Your task to perform on an android device: check storage Image 0: 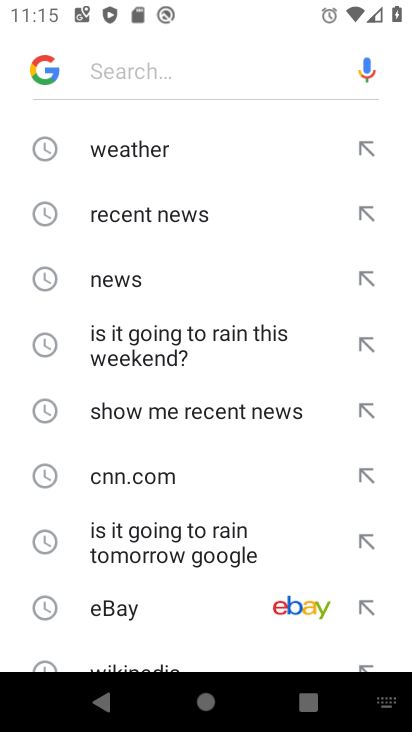
Step 0: press home button
Your task to perform on an android device: check storage Image 1: 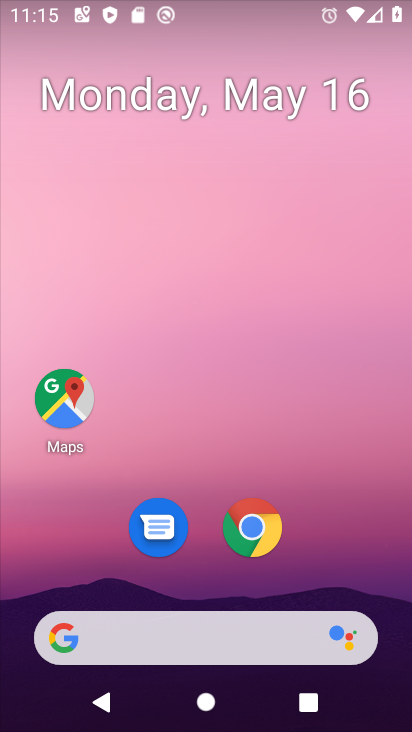
Step 1: drag from (319, 578) to (356, 12)
Your task to perform on an android device: check storage Image 2: 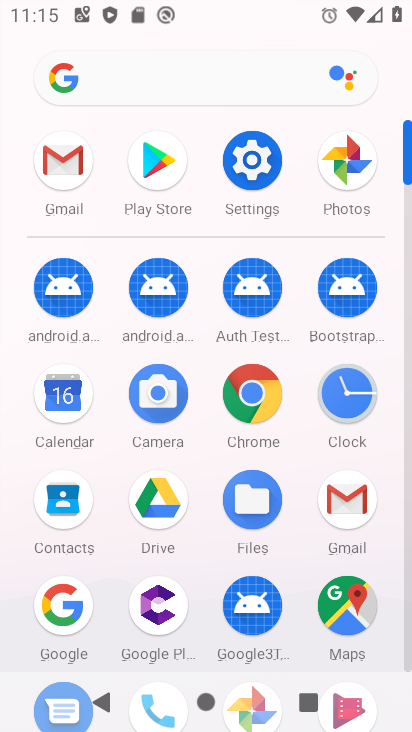
Step 2: click (252, 164)
Your task to perform on an android device: check storage Image 3: 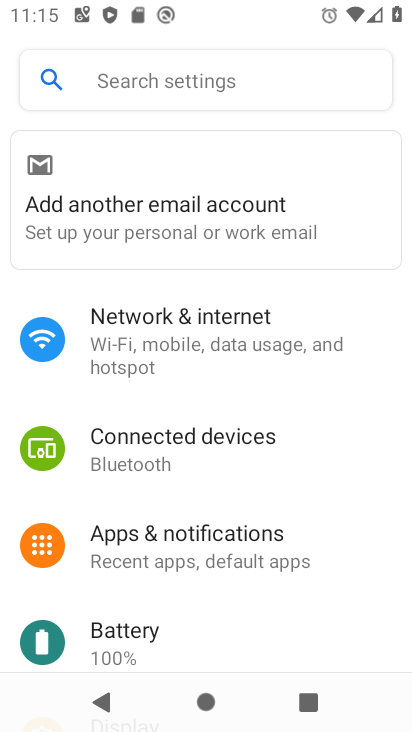
Step 3: drag from (271, 613) to (289, 53)
Your task to perform on an android device: check storage Image 4: 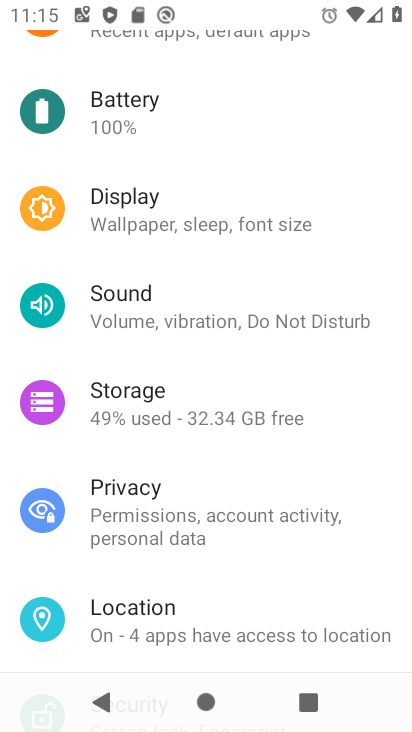
Step 4: click (105, 395)
Your task to perform on an android device: check storage Image 5: 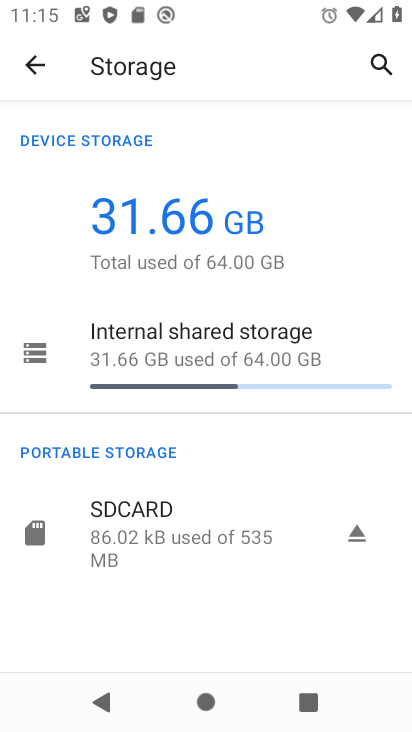
Step 5: click (234, 322)
Your task to perform on an android device: check storage Image 6: 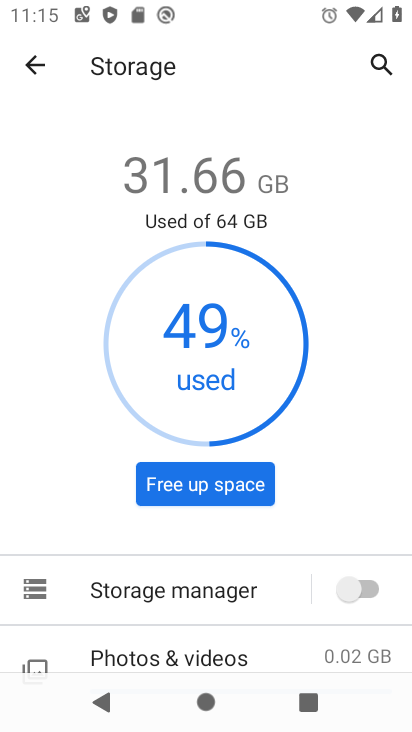
Step 6: task complete